Your task to perform on an android device: Go to Google Image 0: 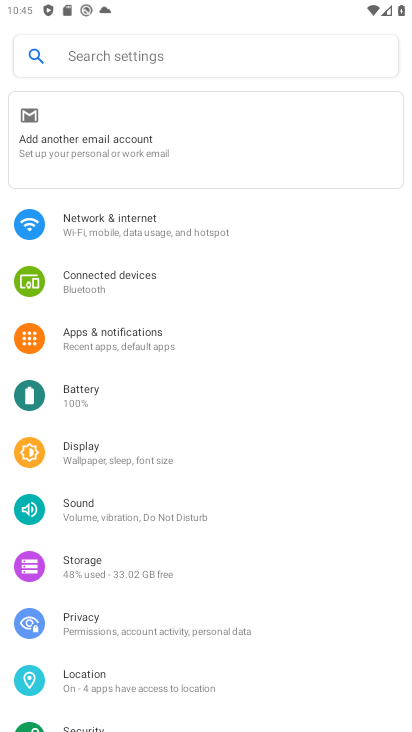
Step 0: press home button
Your task to perform on an android device: Go to Google Image 1: 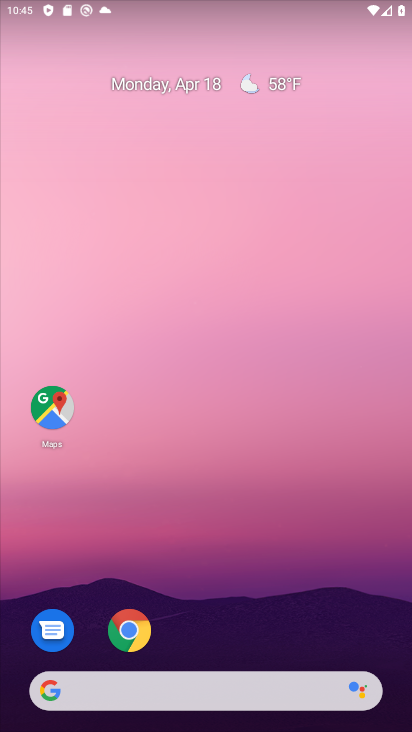
Step 1: drag from (215, 664) to (284, 34)
Your task to perform on an android device: Go to Google Image 2: 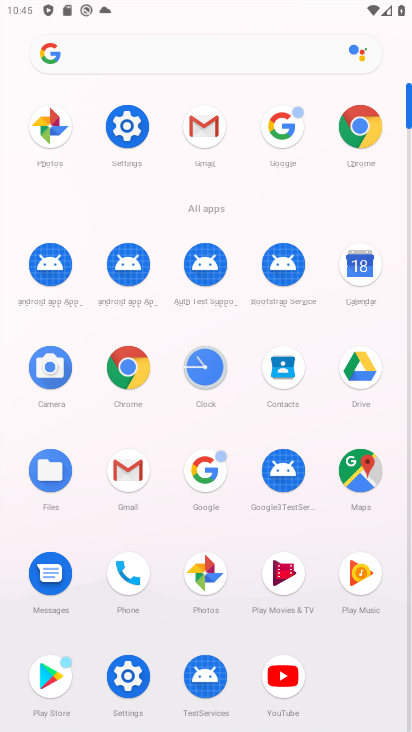
Step 2: click (286, 132)
Your task to perform on an android device: Go to Google Image 3: 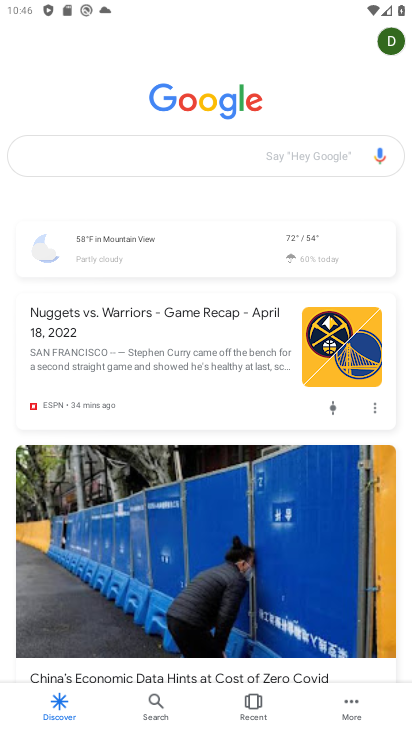
Step 3: task complete